Your task to perform on an android device: toggle sleep mode Image 0: 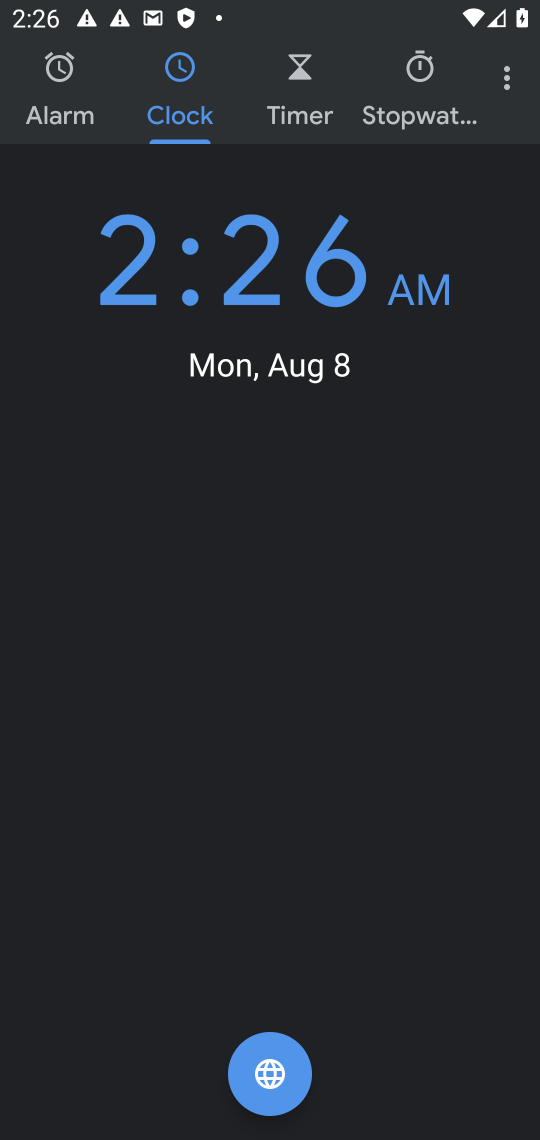
Step 0: press home button
Your task to perform on an android device: toggle sleep mode Image 1: 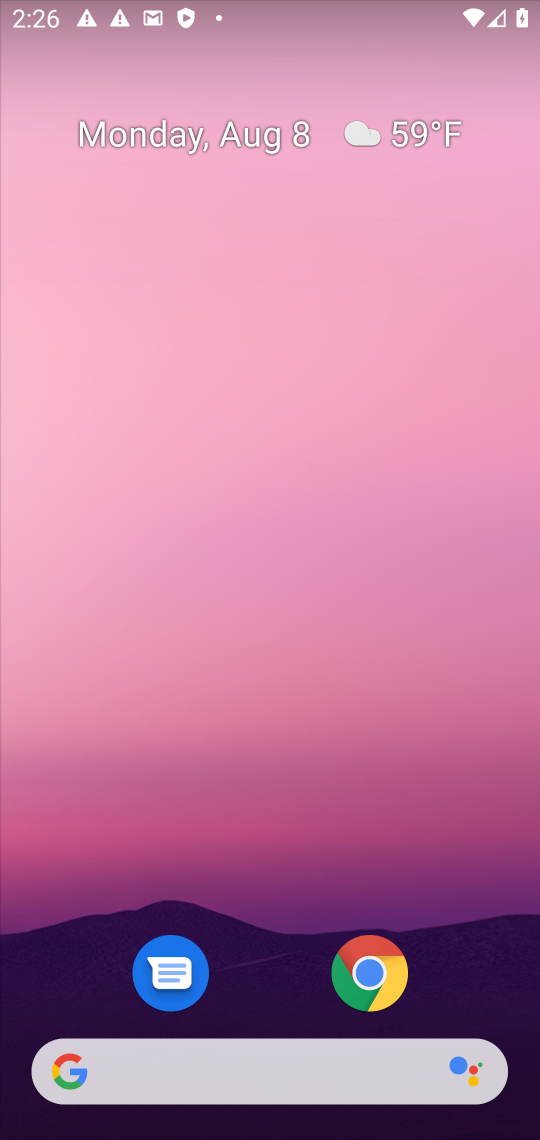
Step 1: drag from (291, 925) to (381, 484)
Your task to perform on an android device: toggle sleep mode Image 2: 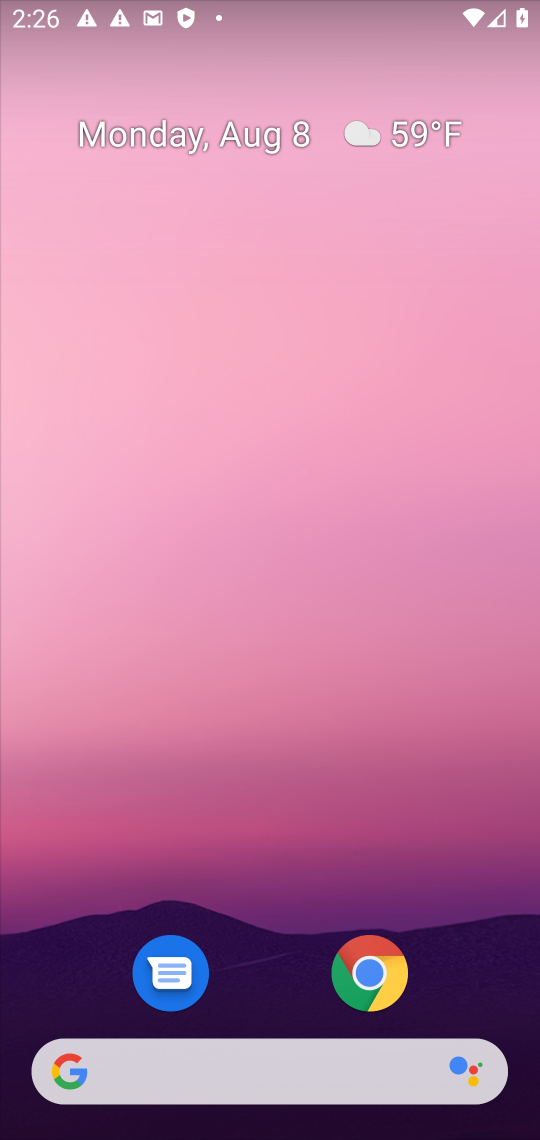
Step 2: drag from (275, 969) to (301, 368)
Your task to perform on an android device: toggle sleep mode Image 3: 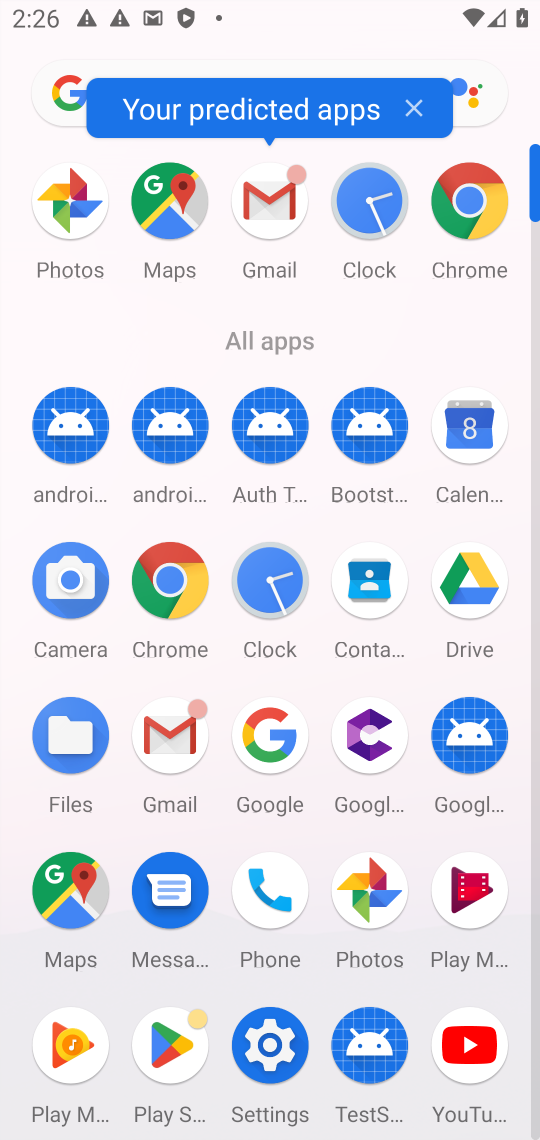
Step 3: click (267, 1040)
Your task to perform on an android device: toggle sleep mode Image 4: 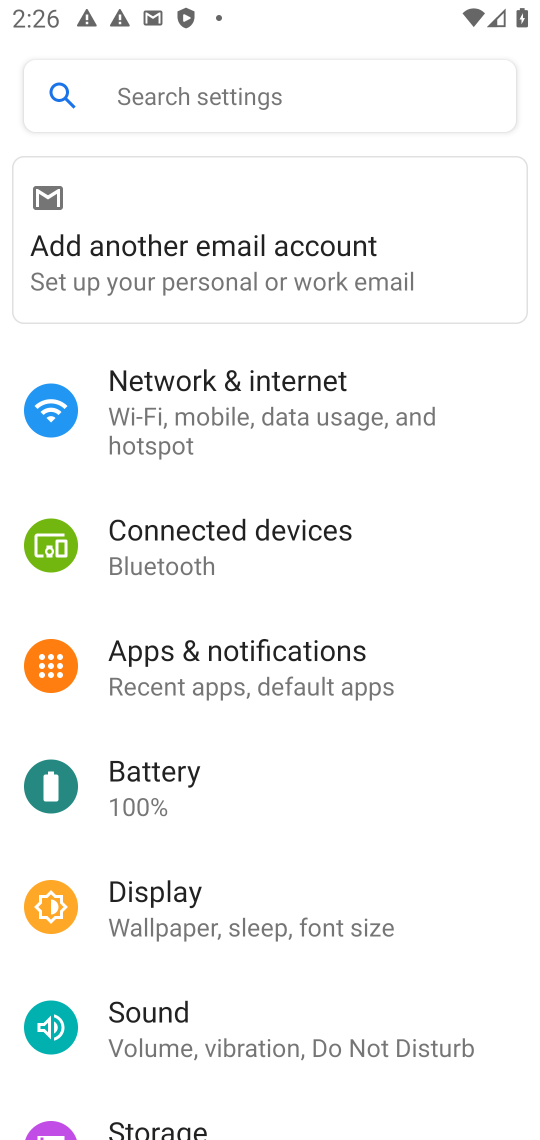
Step 4: click (302, 902)
Your task to perform on an android device: toggle sleep mode Image 5: 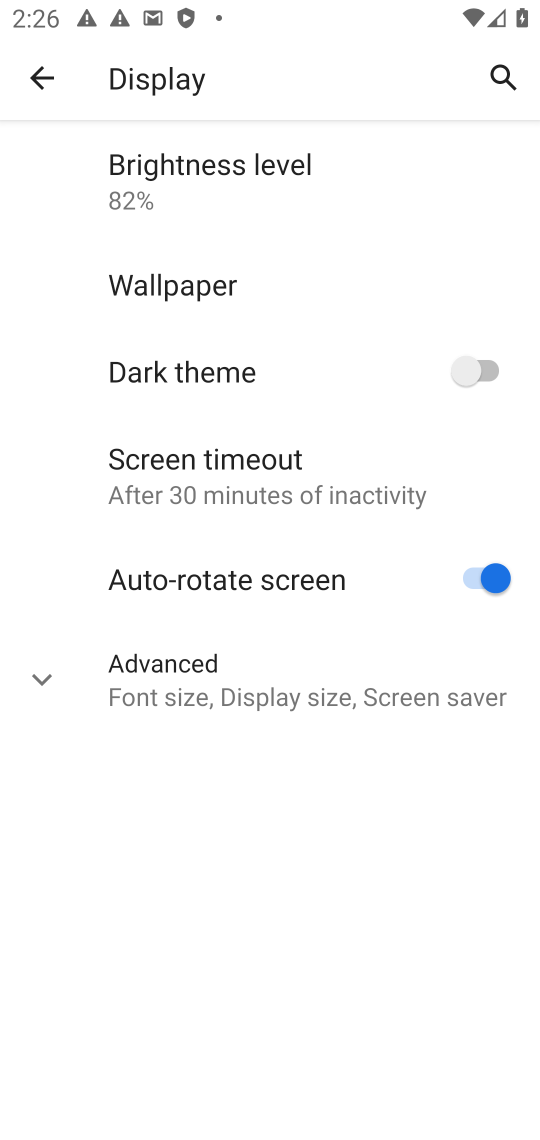
Step 5: click (200, 705)
Your task to perform on an android device: toggle sleep mode Image 6: 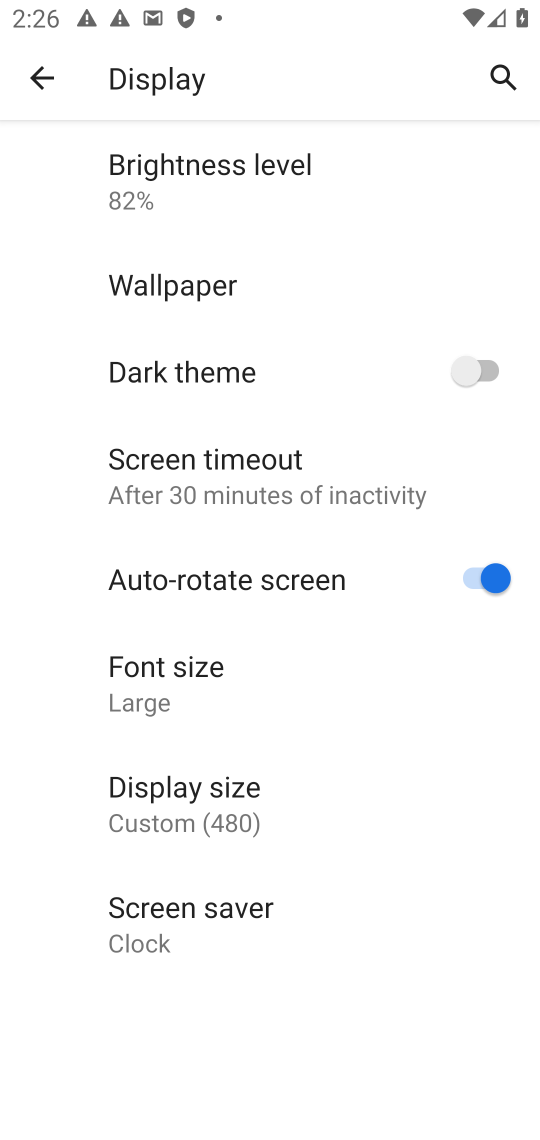
Step 6: task complete